Your task to perform on an android device: What is the news today? Image 0: 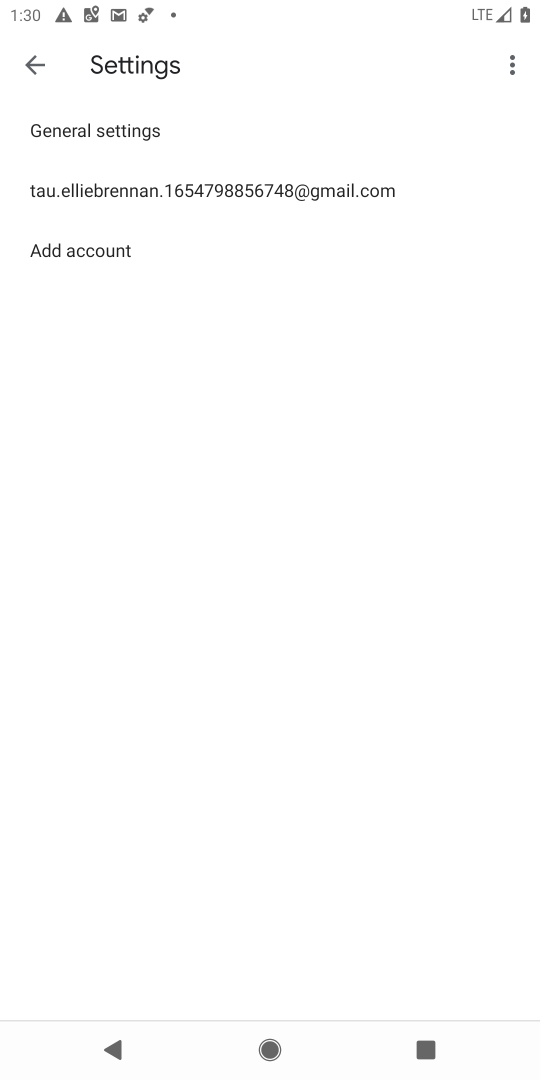
Step 0: press home button
Your task to perform on an android device: What is the news today? Image 1: 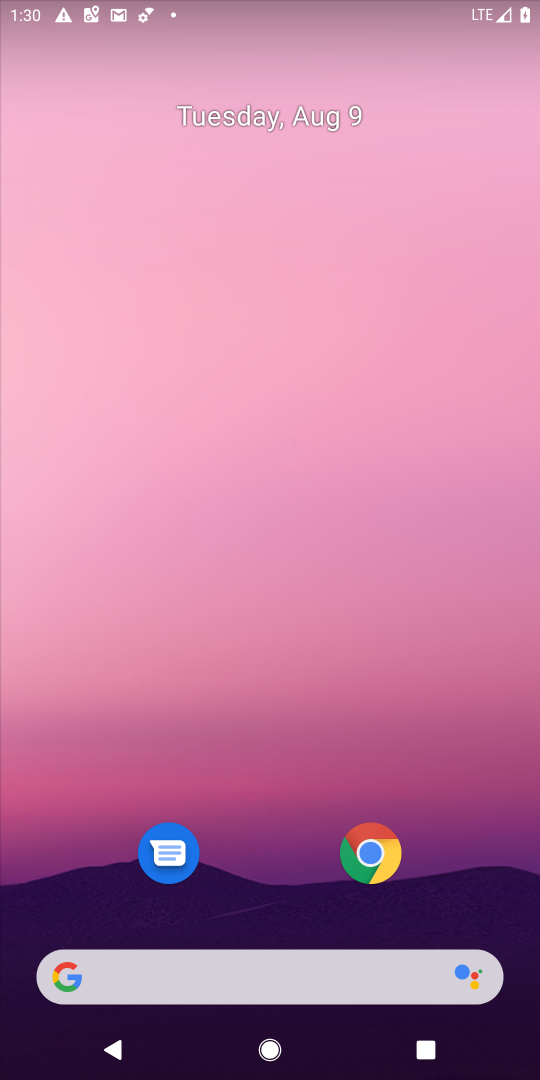
Step 1: task complete